Your task to perform on an android device: turn off notifications in google photos Image 0: 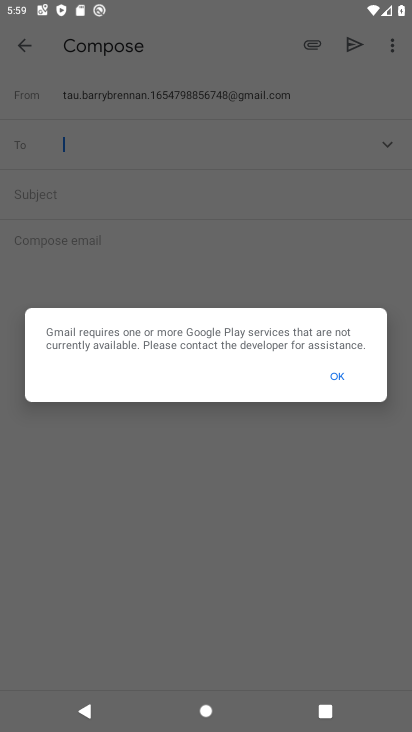
Step 0: press back button
Your task to perform on an android device: turn off notifications in google photos Image 1: 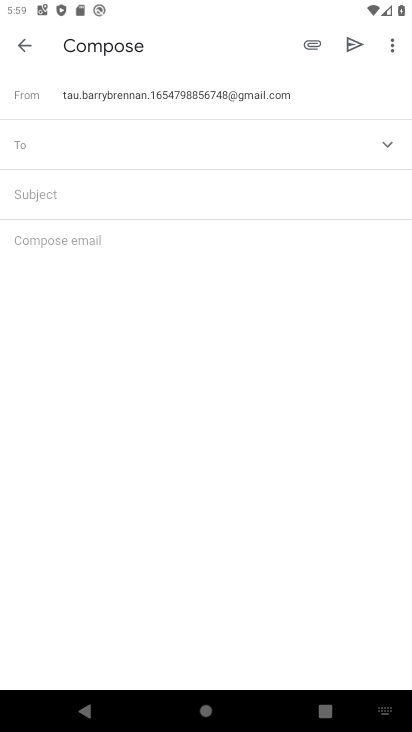
Step 1: press back button
Your task to perform on an android device: turn off notifications in google photos Image 2: 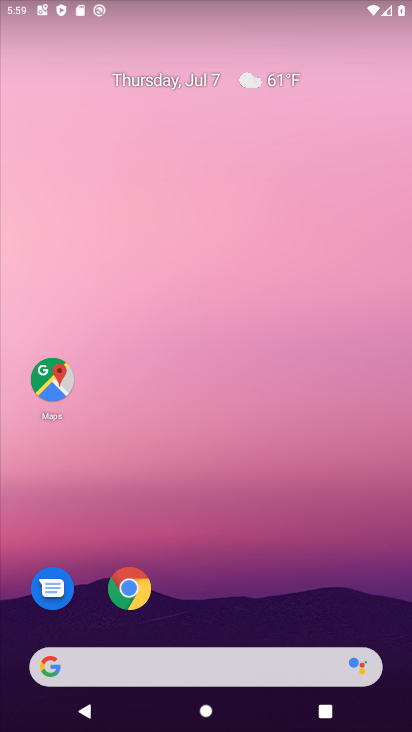
Step 2: drag from (262, 579) to (320, 4)
Your task to perform on an android device: turn off notifications in google photos Image 3: 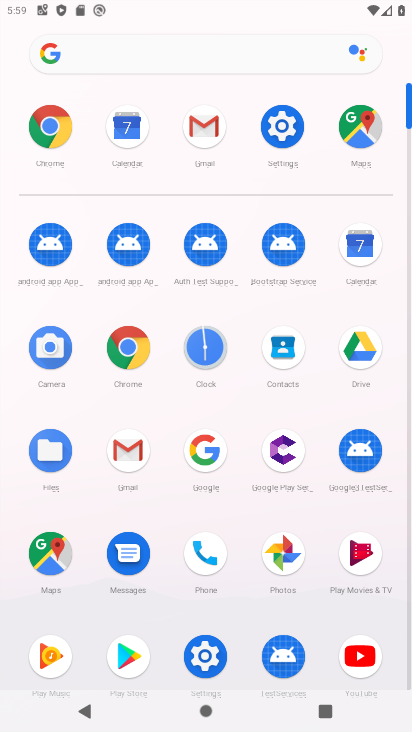
Step 3: click (279, 560)
Your task to perform on an android device: turn off notifications in google photos Image 4: 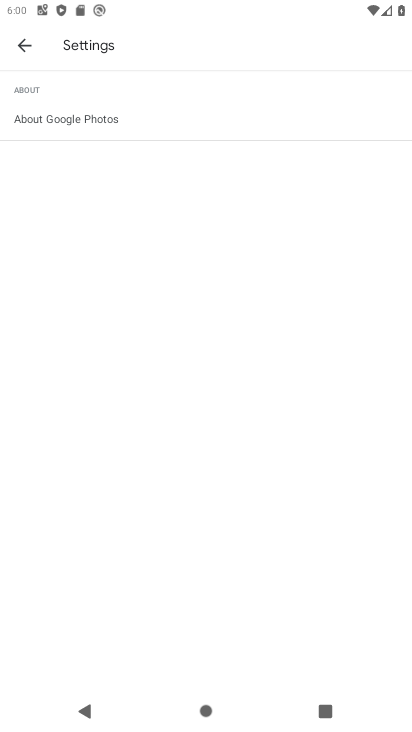
Step 4: click (22, 48)
Your task to perform on an android device: turn off notifications in google photos Image 5: 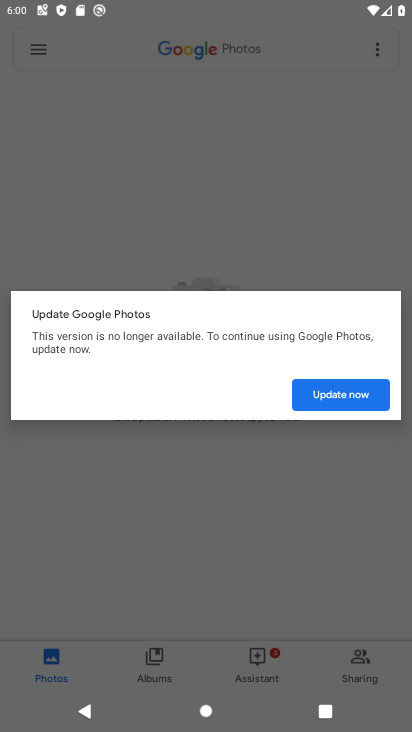
Step 5: press back button
Your task to perform on an android device: turn off notifications in google photos Image 6: 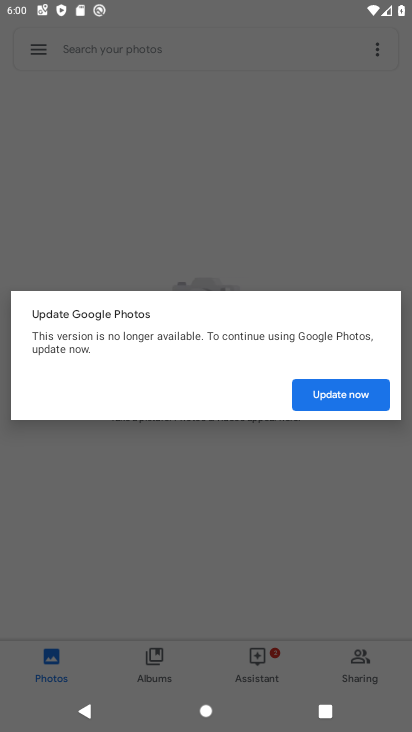
Step 6: press back button
Your task to perform on an android device: turn off notifications in google photos Image 7: 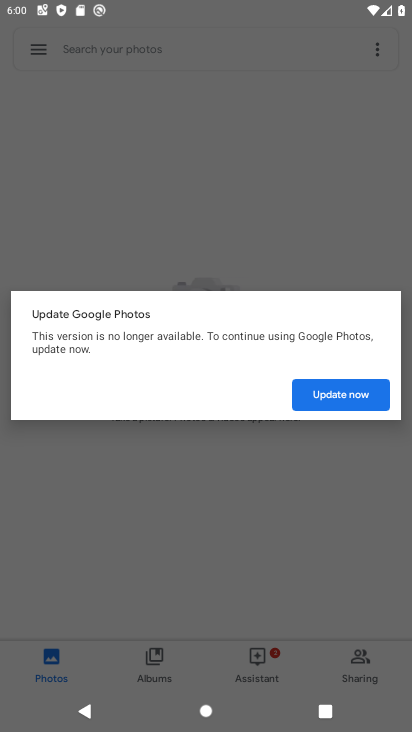
Step 7: press home button
Your task to perform on an android device: turn off notifications in google photos Image 8: 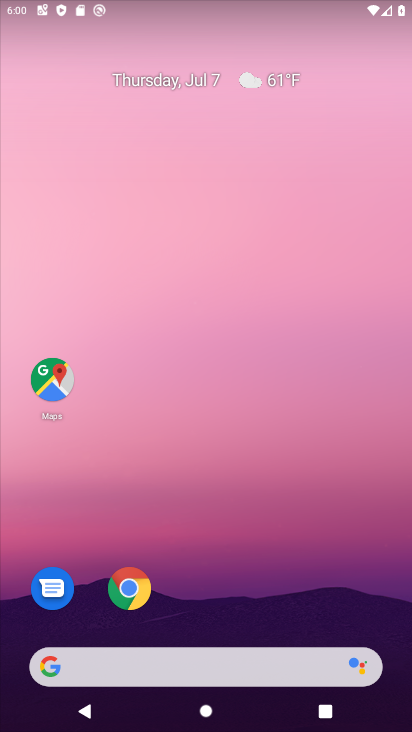
Step 8: drag from (217, 598) to (293, 48)
Your task to perform on an android device: turn off notifications in google photos Image 9: 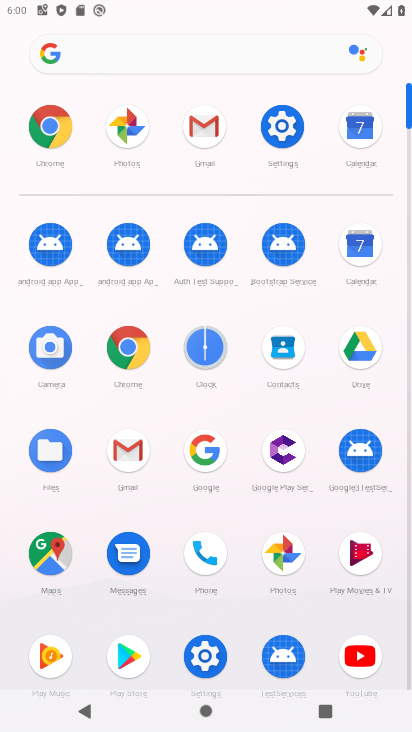
Step 9: click (284, 561)
Your task to perform on an android device: turn off notifications in google photos Image 10: 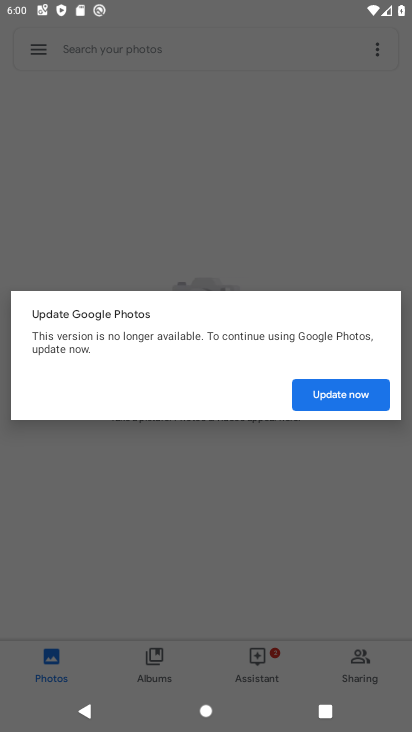
Step 10: click (316, 386)
Your task to perform on an android device: turn off notifications in google photos Image 11: 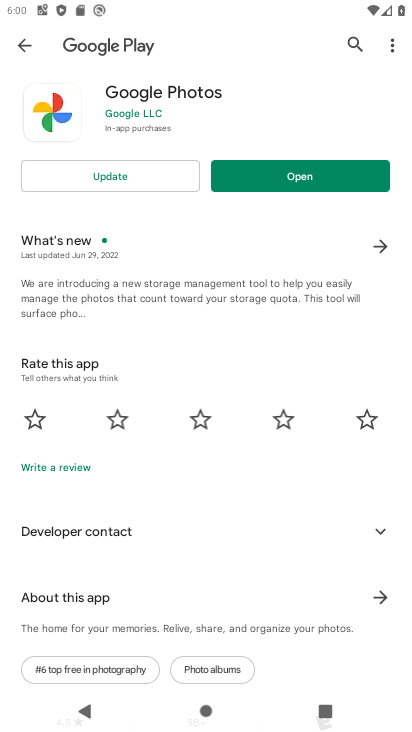
Step 11: click (320, 177)
Your task to perform on an android device: turn off notifications in google photos Image 12: 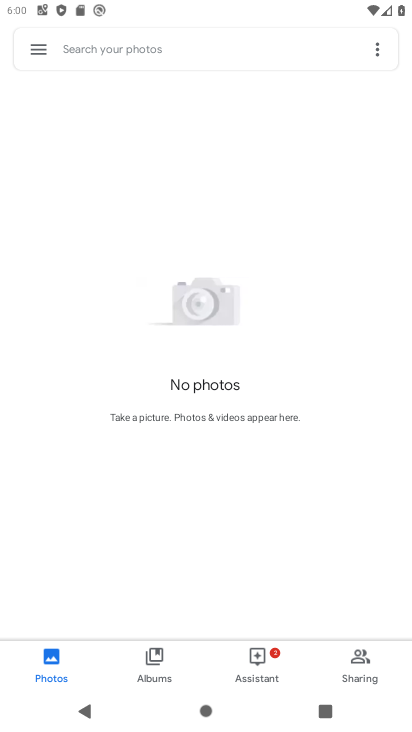
Step 12: click (48, 667)
Your task to perform on an android device: turn off notifications in google photos Image 13: 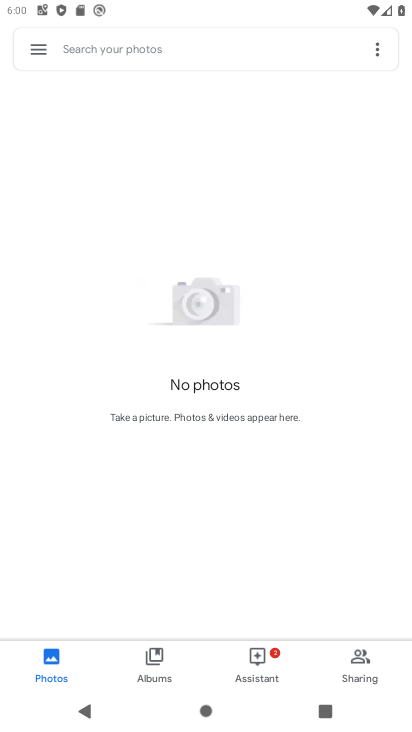
Step 13: click (32, 42)
Your task to perform on an android device: turn off notifications in google photos Image 14: 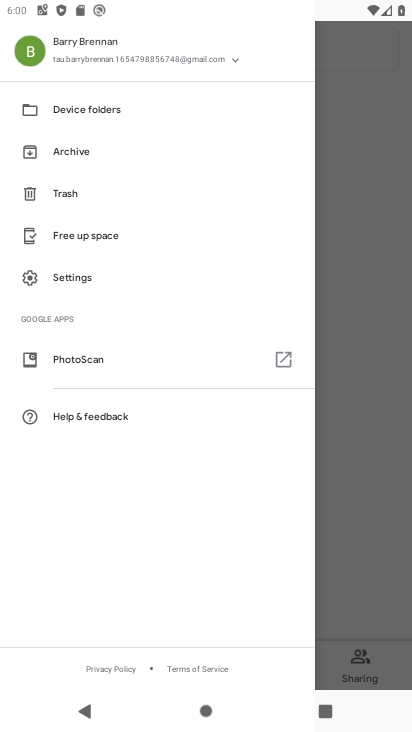
Step 14: click (69, 260)
Your task to perform on an android device: turn off notifications in google photos Image 15: 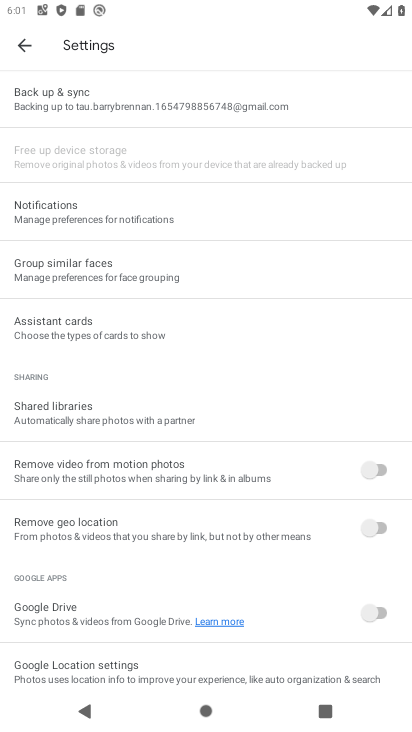
Step 15: drag from (114, 572) to (158, 726)
Your task to perform on an android device: turn off notifications in google photos Image 16: 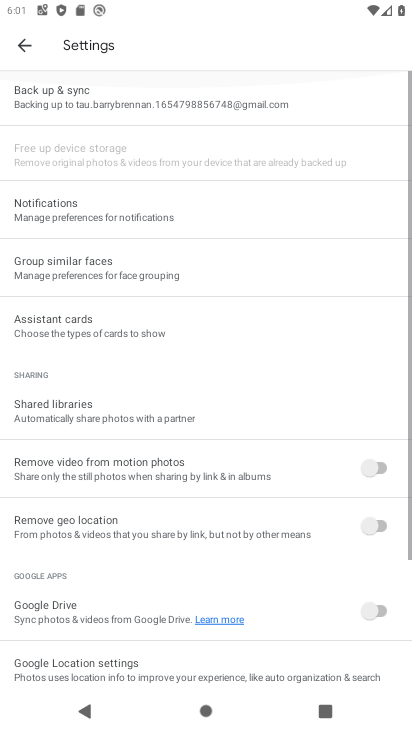
Step 16: click (84, 213)
Your task to perform on an android device: turn off notifications in google photos Image 17: 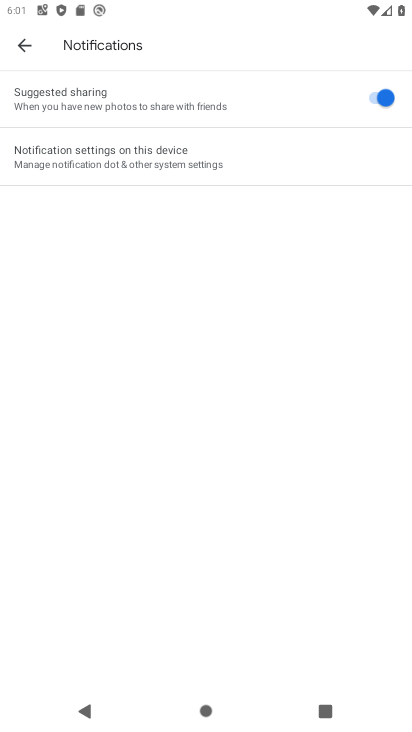
Step 17: click (382, 95)
Your task to perform on an android device: turn off notifications in google photos Image 18: 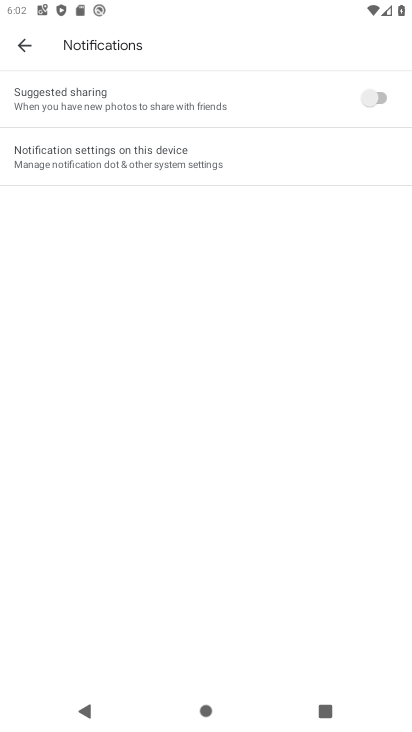
Step 18: task complete